Your task to perform on an android device: How much does the HisenseTV cost? Image 0: 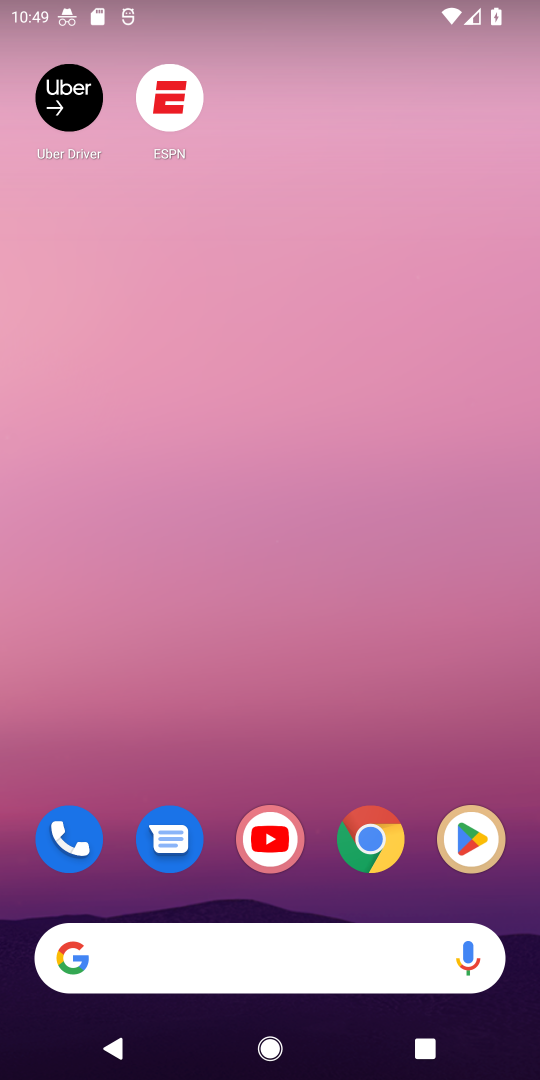
Step 0: drag from (309, 899) to (476, 24)
Your task to perform on an android device: How much does the HisenseTV cost? Image 1: 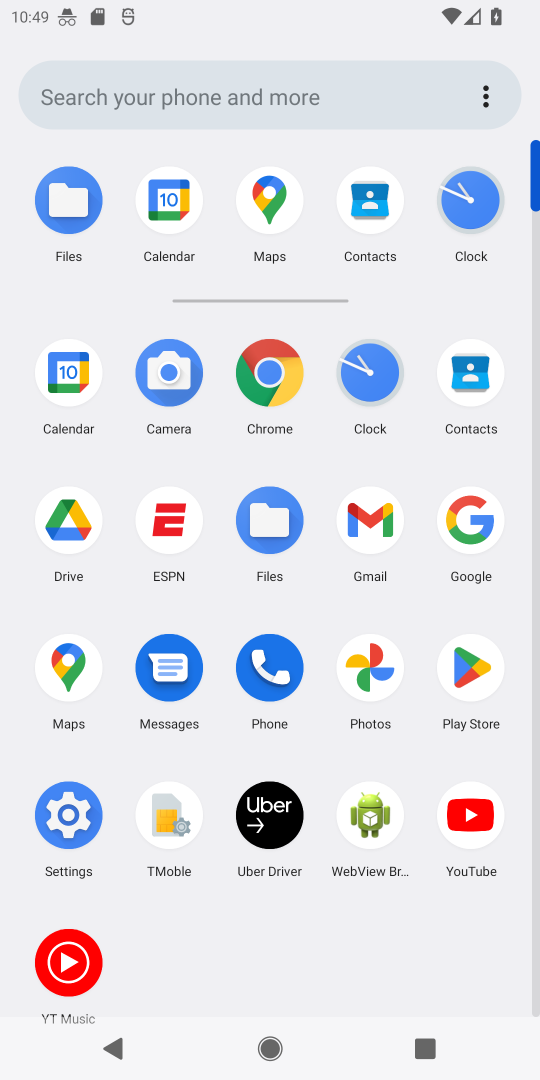
Step 1: click (274, 372)
Your task to perform on an android device: How much does the HisenseTV cost? Image 2: 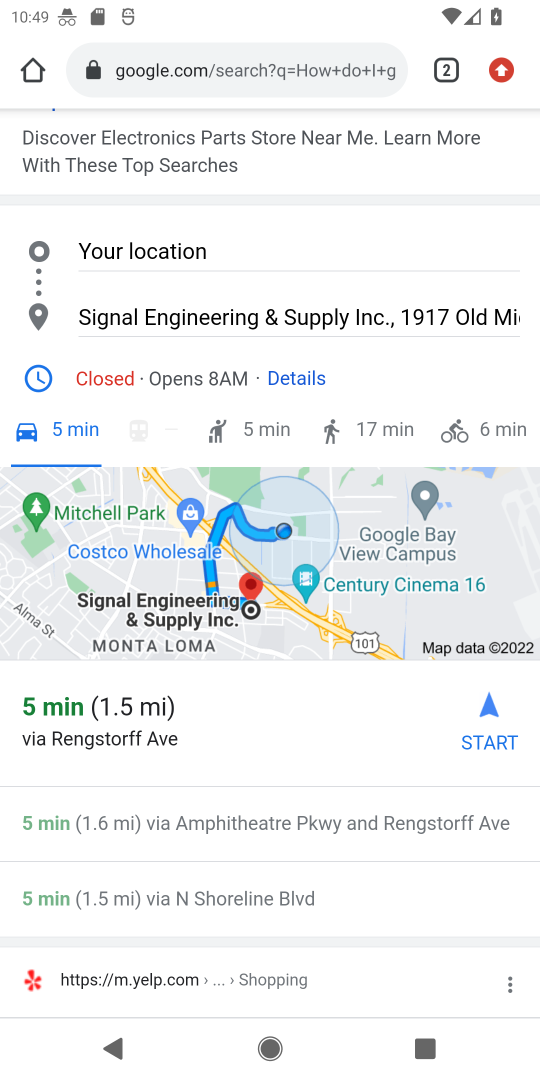
Step 2: click (261, 63)
Your task to perform on an android device: How much does the HisenseTV cost? Image 3: 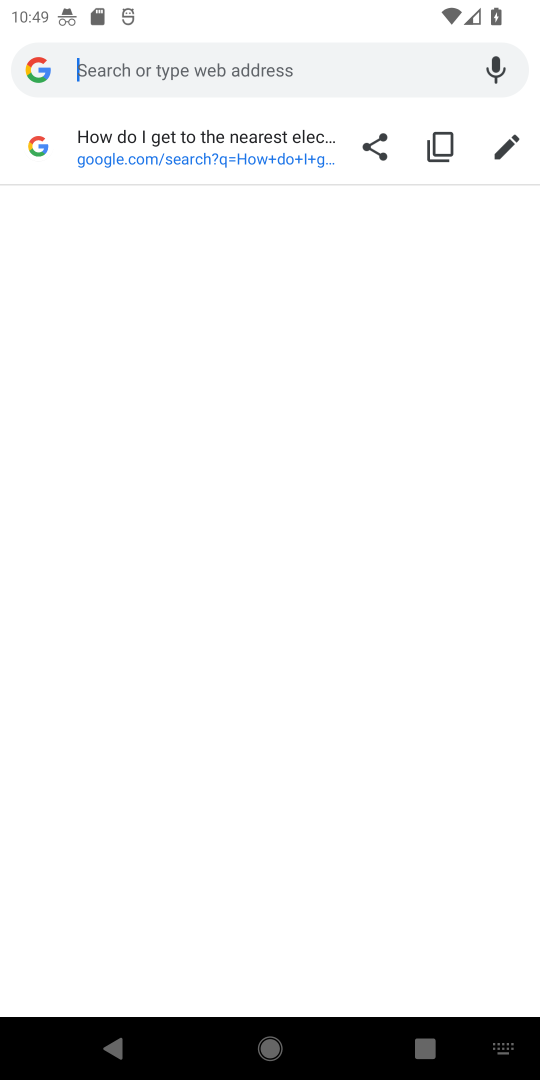
Step 3: type "How much does the Hisense TV cost?"
Your task to perform on an android device: How much does the HisenseTV cost? Image 4: 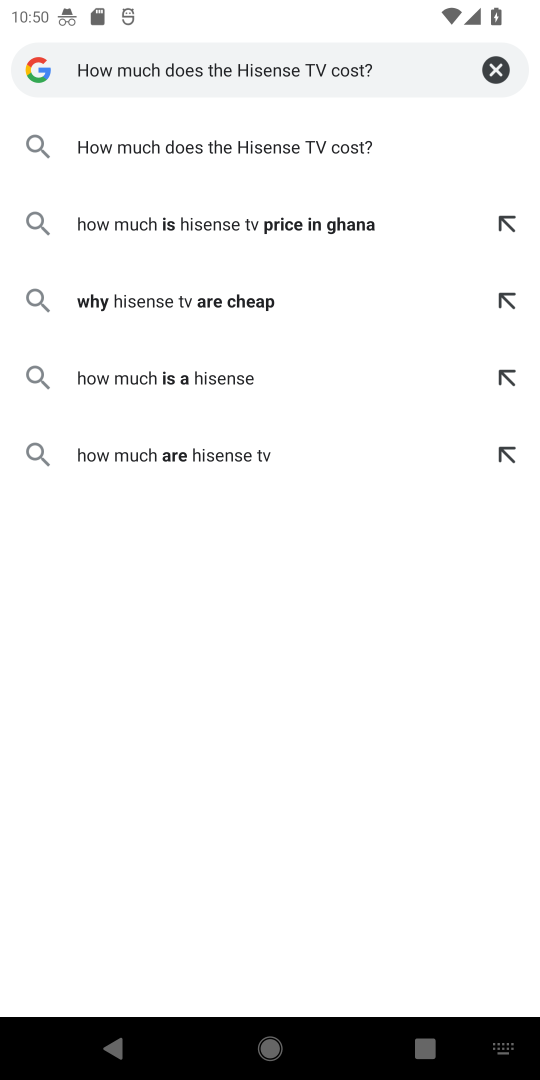
Step 4: press enter
Your task to perform on an android device: How much does the HisenseTV cost? Image 5: 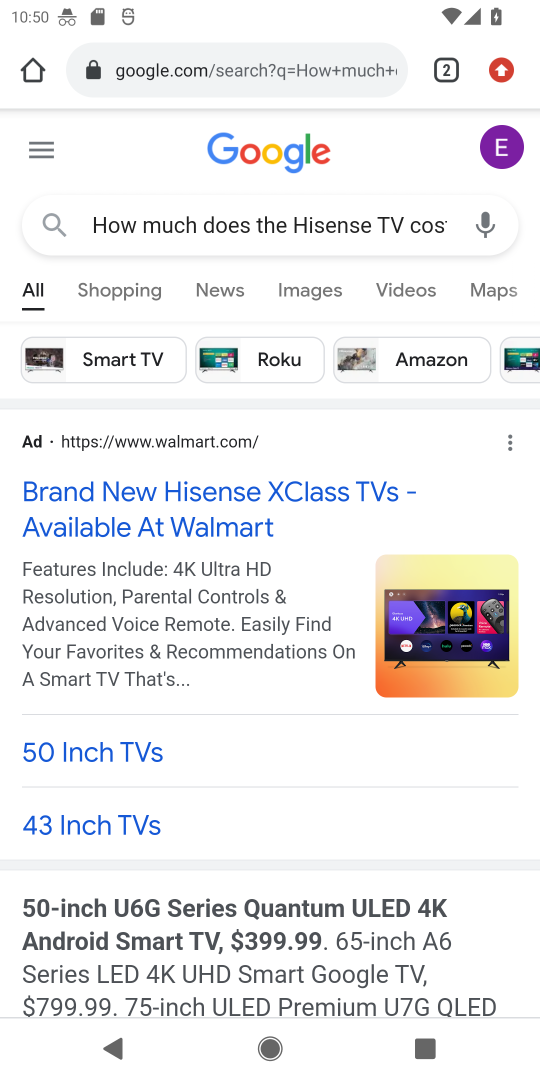
Step 5: task complete